Your task to perform on an android device: Find coffee shops on Maps Image 0: 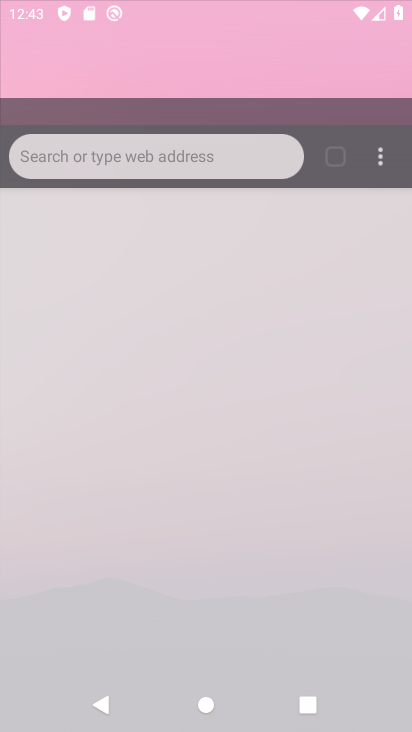
Step 0: drag from (237, 536) to (375, 50)
Your task to perform on an android device: Find coffee shops on Maps Image 1: 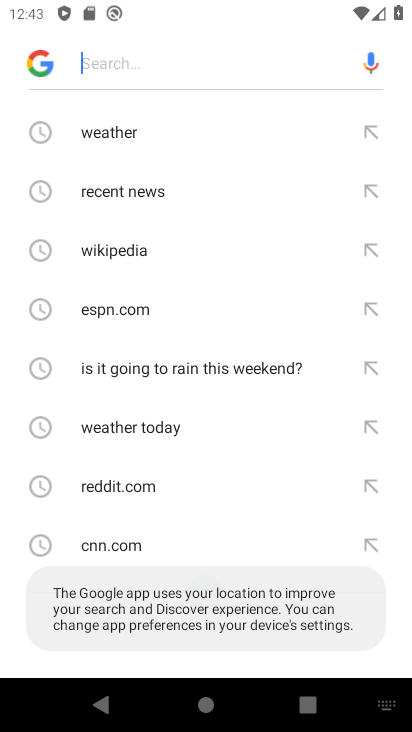
Step 1: press home button
Your task to perform on an android device: Find coffee shops on Maps Image 2: 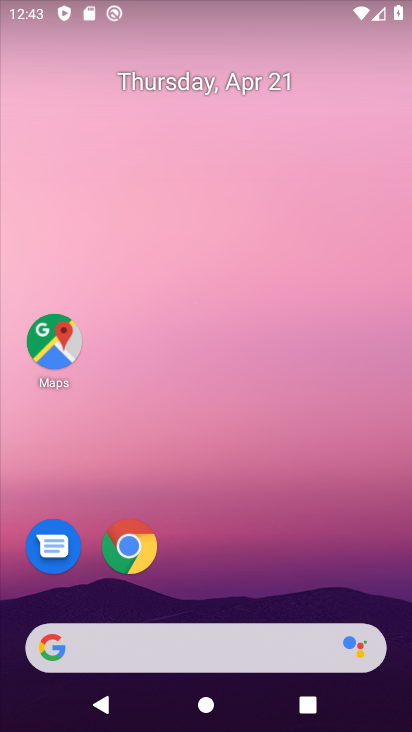
Step 2: click (49, 348)
Your task to perform on an android device: Find coffee shops on Maps Image 3: 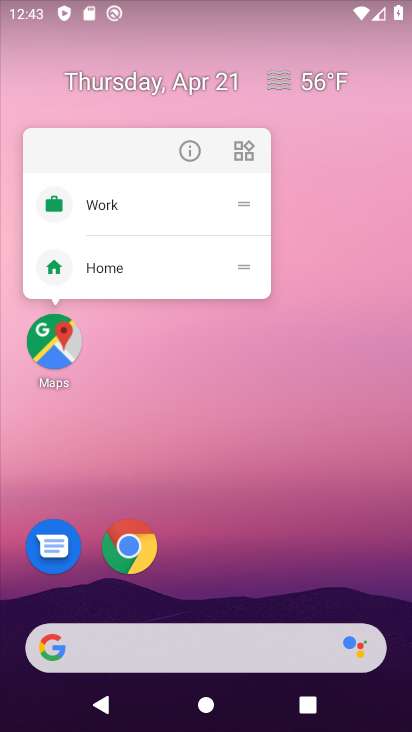
Step 3: click (49, 348)
Your task to perform on an android device: Find coffee shops on Maps Image 4: 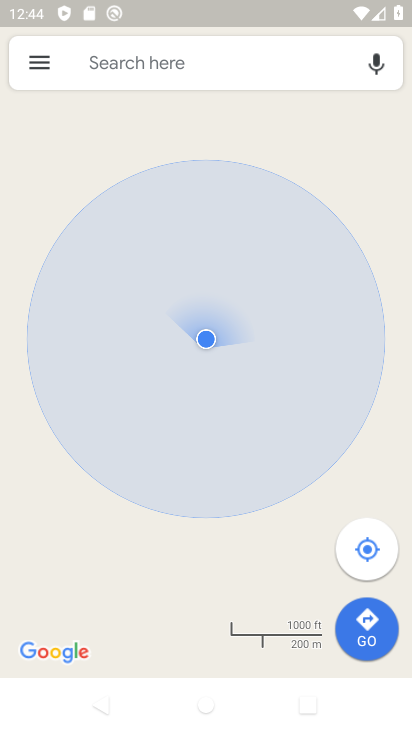
Step 4: click (187, 62)
Your task to perform on an android device: Find coffee shops on Maps Image 5: 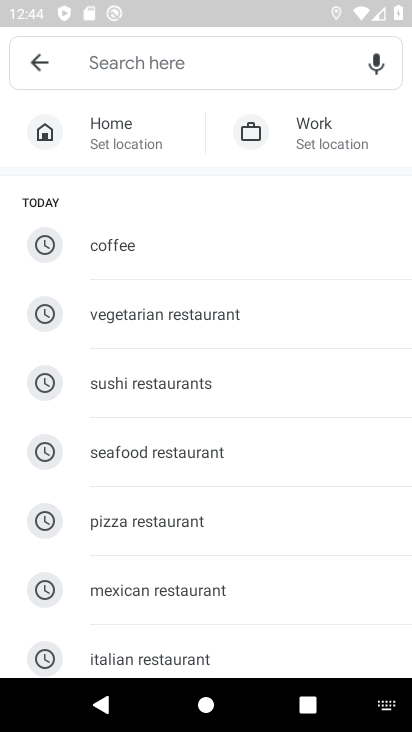
Step 5: type "coffee"
Your task to perform on an android device: Find coffee shops on Maps Image 6: 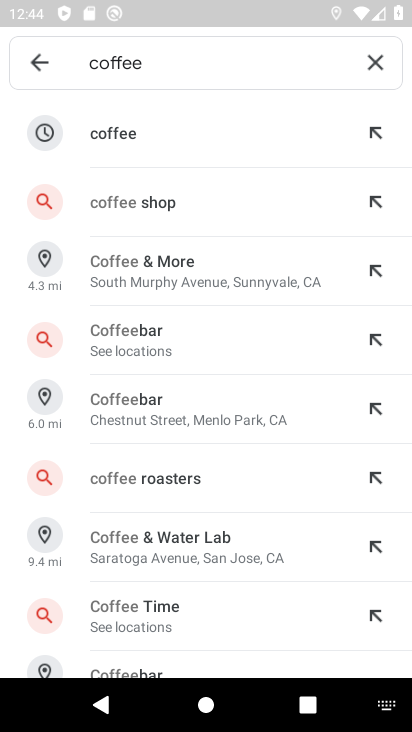
Step 6: click (126, 197)
Your task to perform on an android device: Find coffee shops on Maps Image 7: 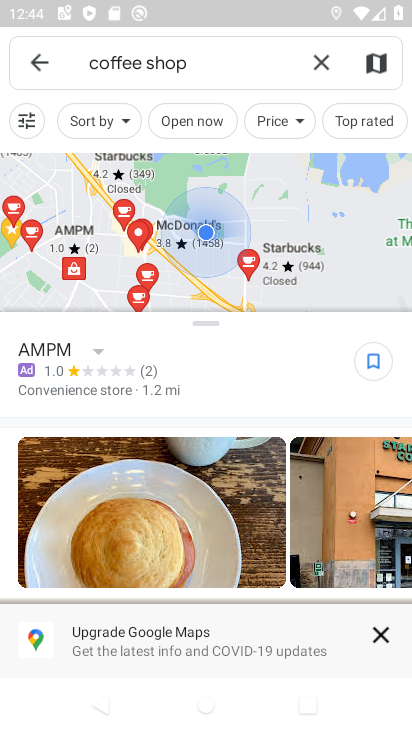
Step 7: task complete